Your task to perform on an android device: Go to ESPN.com Image 0: 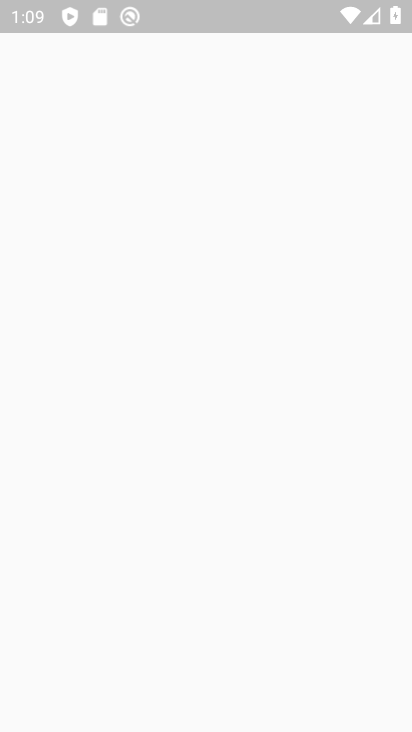
Step 0: press home button
Your task to perform on an android device: Go to ESPN.com Image 1: 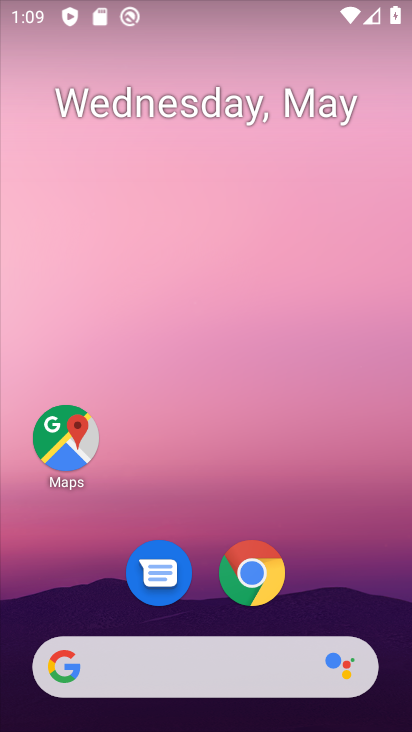
Step 1: click (232, 672)
Your task to perform on an android device: Go to ESPN.com Image 2: 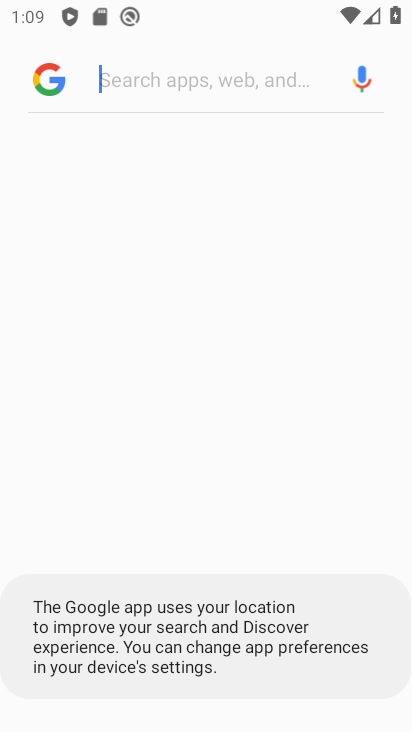
Step 2: click (232, 672)
Your task to perform on an android device: Go to ESPN.com Image 3: 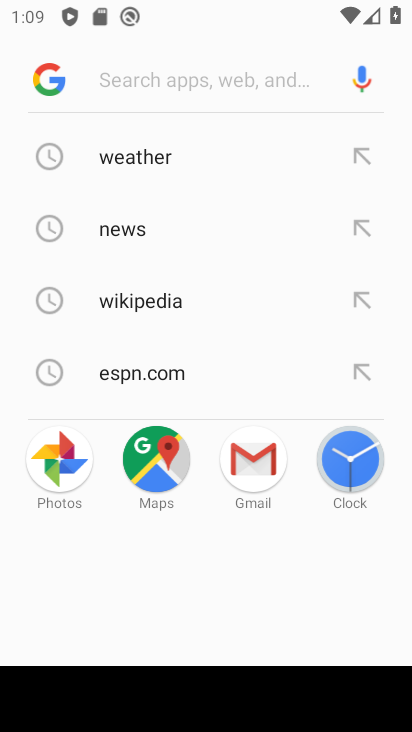
Step 3: click (270, 378)
Your task to perform on an android device: Go to ESPN.com Image 4: 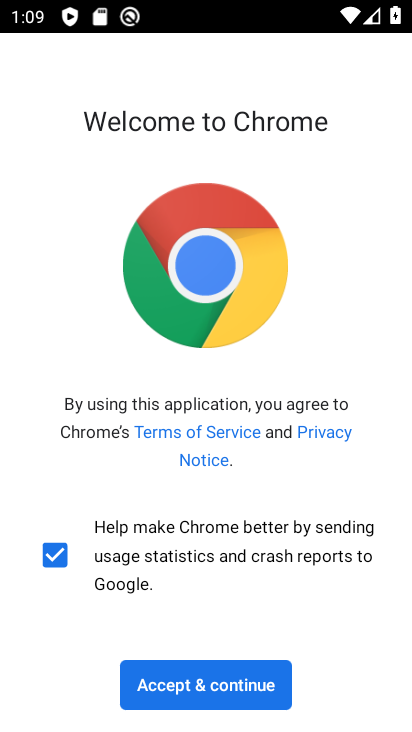
Step 4: click (195, 681)
Your task to perform on an android device: Go to ESPN.com Image 5: 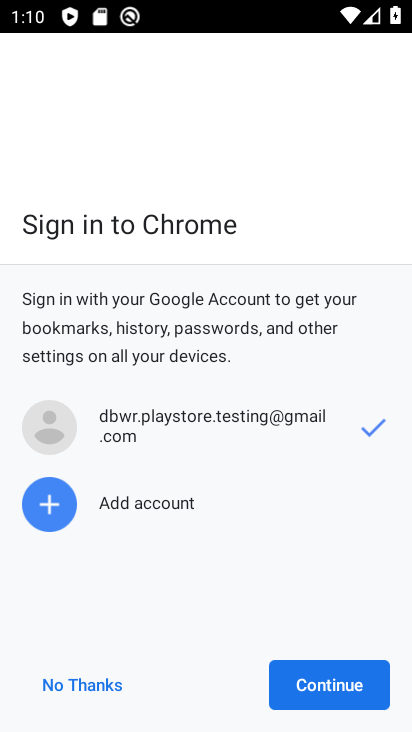
Step 5: click (284, 679)
Your task to perform on an android device: Go to ESPN.com Image 6: 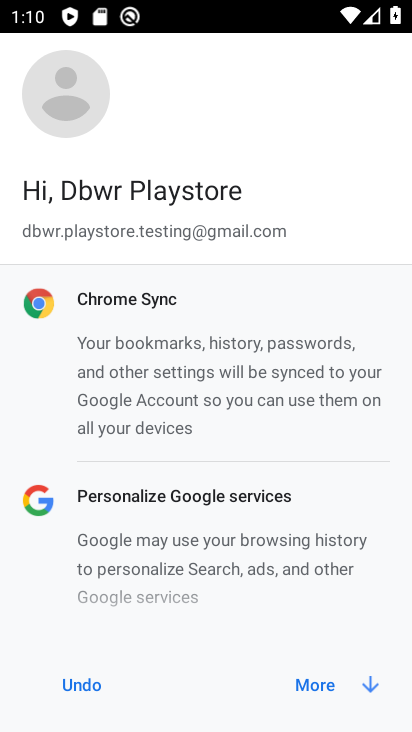
Step 6: click (312, 689)
Your task to perform on an android device: Go to ESPN.com Image 7: 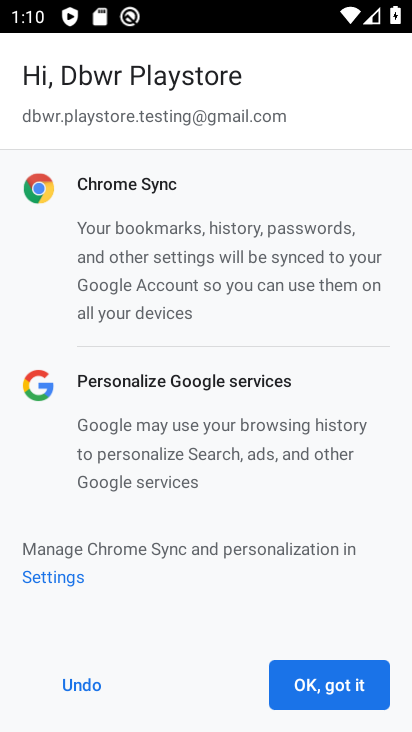
Step 7: click (326, 694)
Your task to perform on an android device: Go to ESPN.com Image 8: 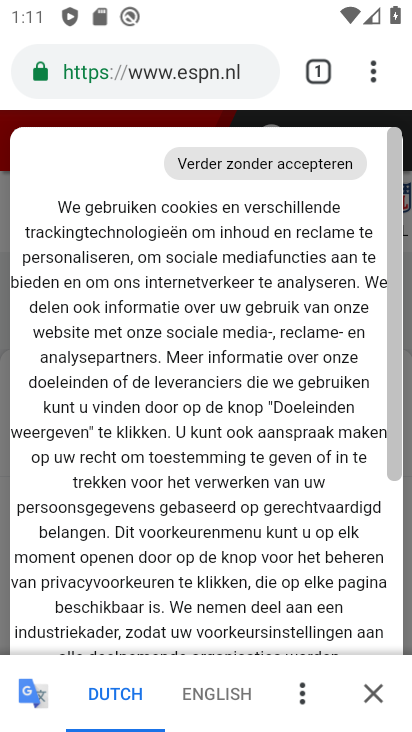
Step 8: task complete